Your task to perform on an android device: Open my contact list Image 0: 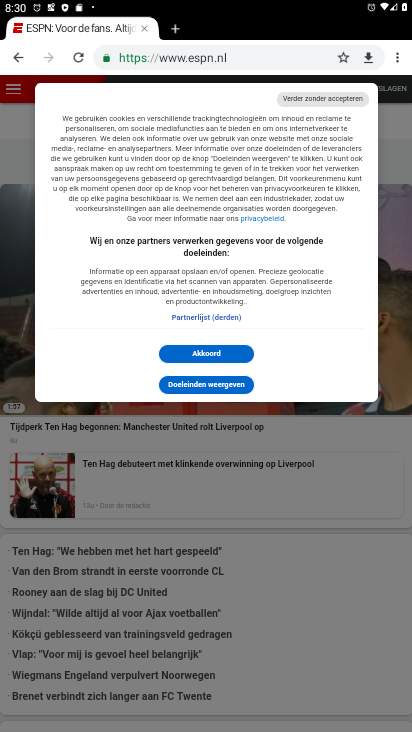
Step 0: press home button
Your task to perform on an android device: Open my contact list Image 1: 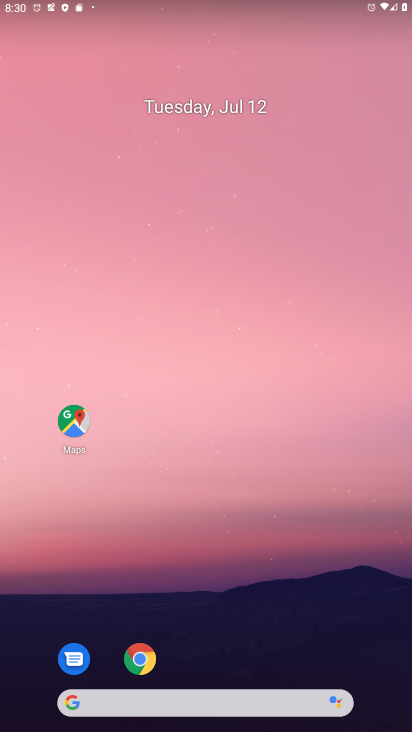
Step 1: drag from (163, 703) to (164, 81)
Your task to perform on an android device: Open my contact list Image 2: 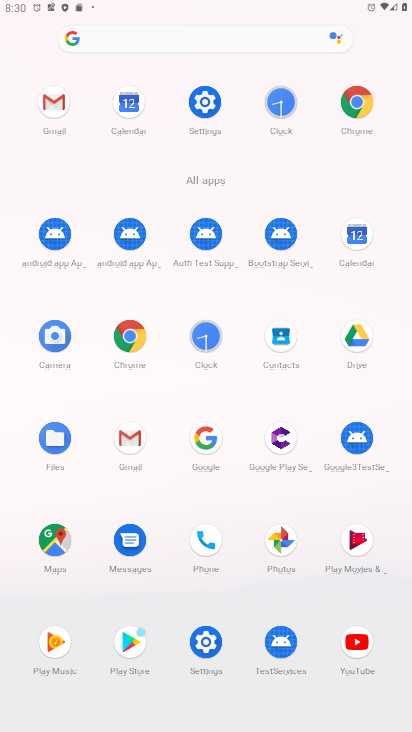
Step 2: click (279, 337)
Your task to perform on an android device: Open my contact list Image 3: 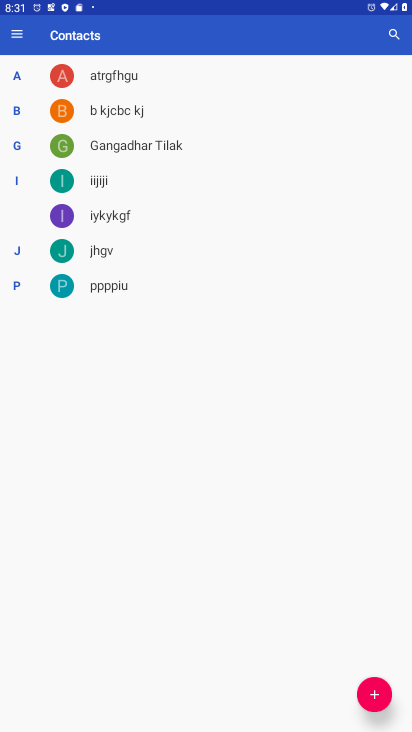
Step 3: task complete